Your task to perform on an android device: turn on the 24-hour format for clock Image 0: 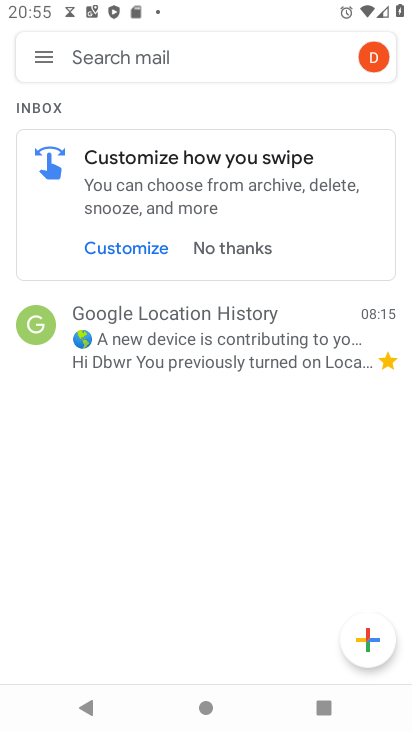
Step 0: press home button
Your task to perform on an android device: turn on the 24-hour format for clock Image 1: 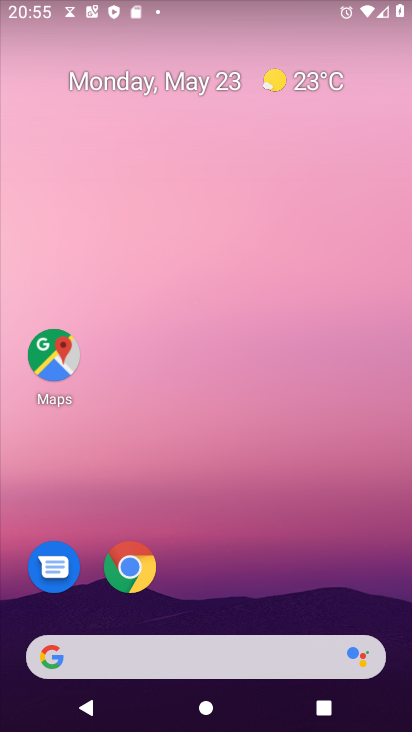
Step 1: drag from (233, 569) to (234, 245)
Your task to perform on an android device: turn on the 24-hour format for clock Image 2: 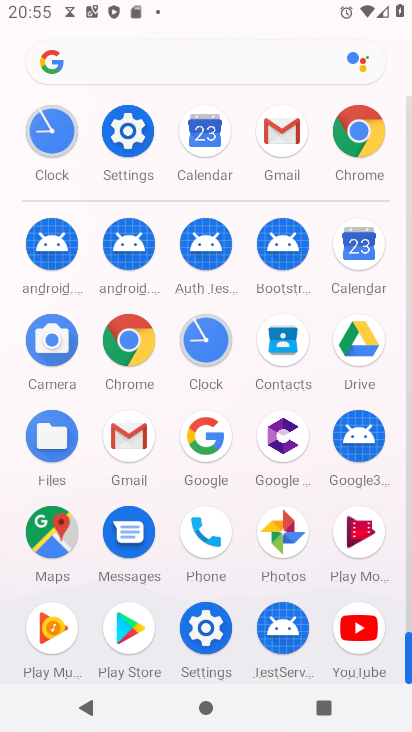
Step 2: click (208, 341)
Your task to perform on an android device: turn on the 24-hour format for clock Image 3: 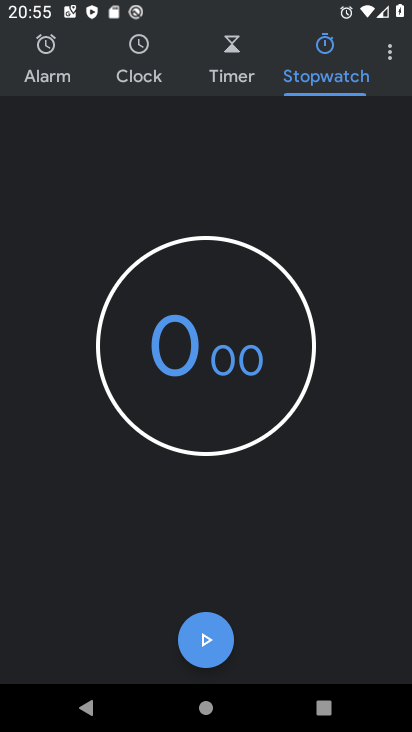
Step 3: click (136, 73)
Your task to perform on an android device: turn on the 24-hour format for clock Image 4: 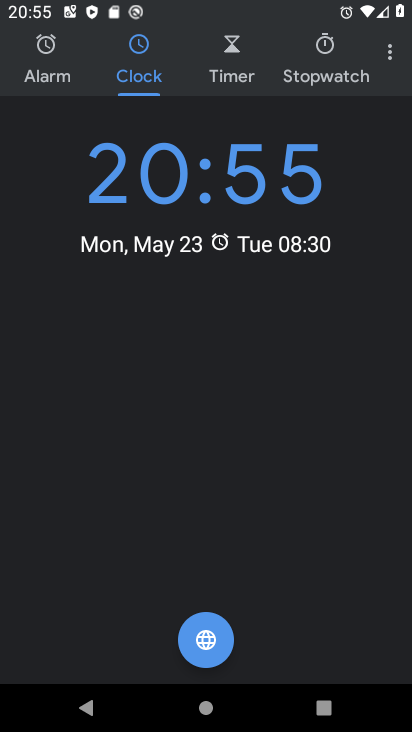
Step 4: click (377, 59)
Your task to perform on an android device: turn on the 24-hour format for clock Image 5: 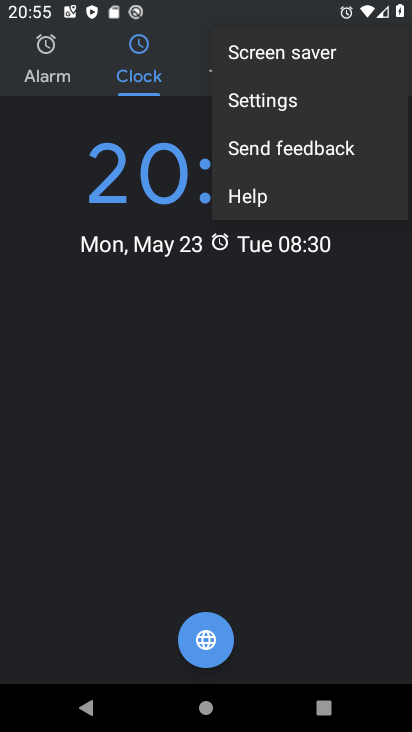
Step 5: click (302, 90)
Your task to perform on an android device: turn on the 24-hour format for clock Image 6: 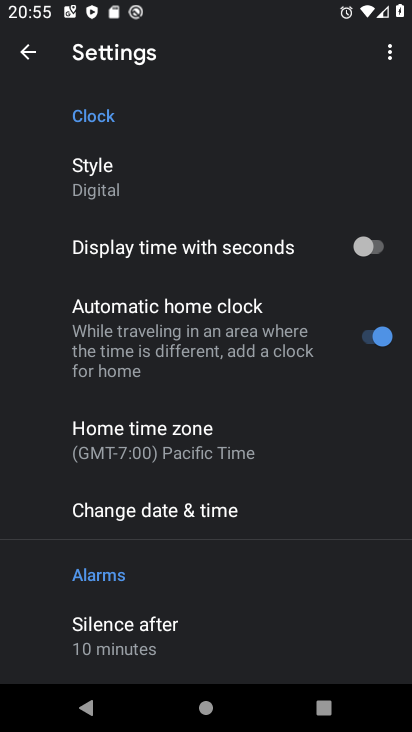
Step 6: click (245, 515)
Your task to perform on an android device: turn on the 24-hour format for clock Image 7: 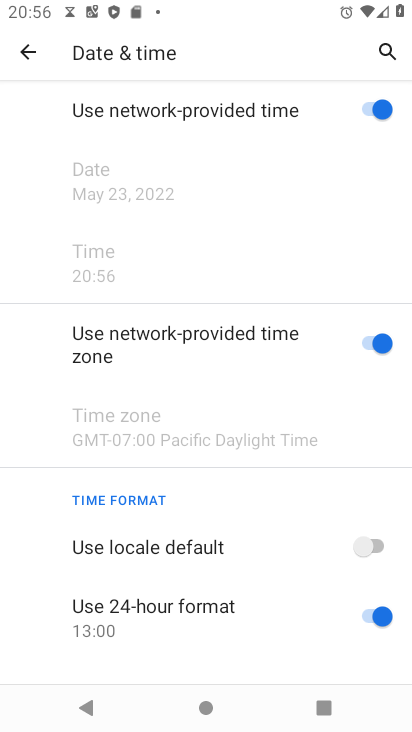
Step 7: click (199, 628)
Your task to perform on an android device: turn on the 24-hour format for clock Image 8: 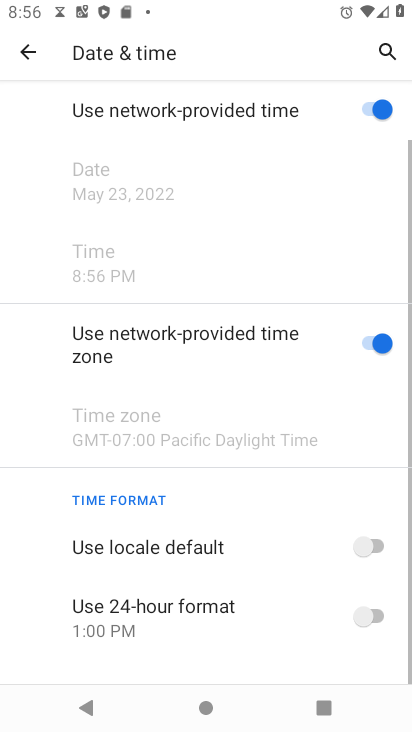
Step 8: click (388, 615)
Your task to perform on an android device: turn on the 24-hour format for clock Image 9: 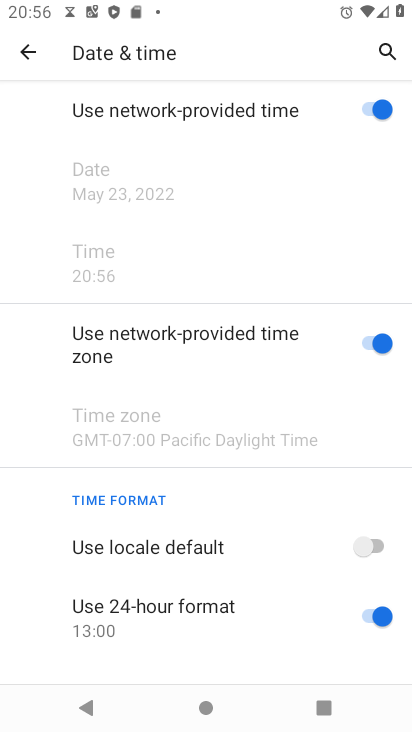
Step 9: task complete